Your task to perform on an android device: set an alarm Image 0: 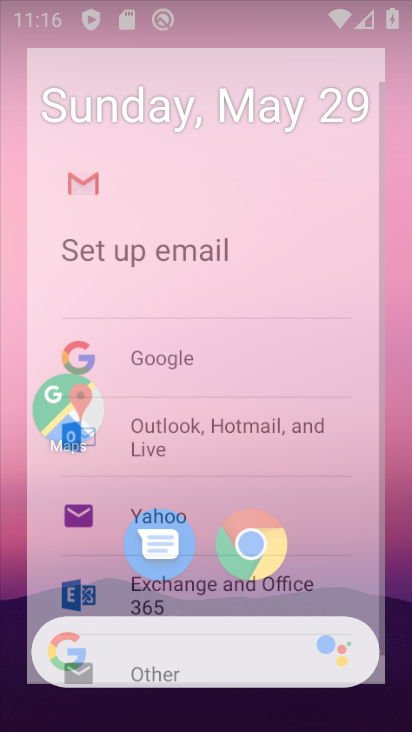
Step 0: press home button
Your task to perform on an android device: set an alarm Image 1: 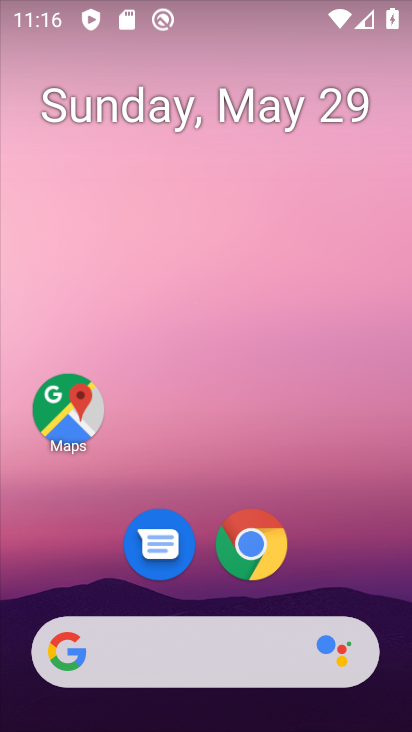
Step 1: drag from (200, 591) to (206, 2)
Your task to perform on an android device: set an alarm Image 2: 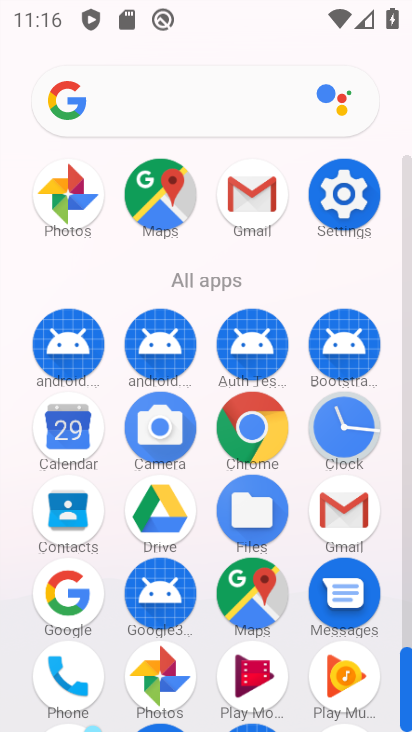
Step 2: click (341, 422)
Your task to perform on an android device: set an alarm Image 3: 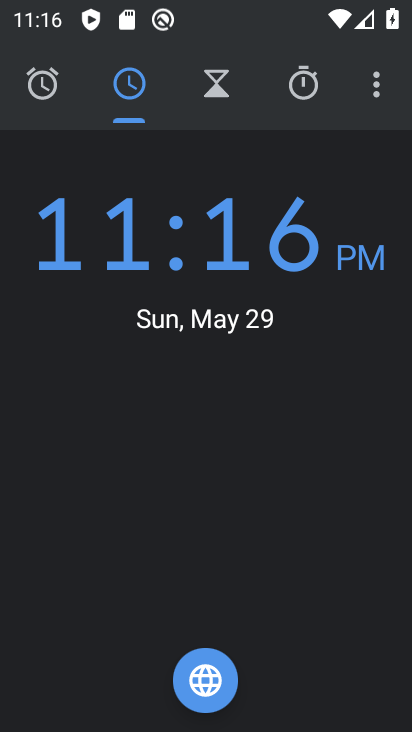
Step 3: click (41, 79)
Your task to perform on an android device: set an alarm Image 4: 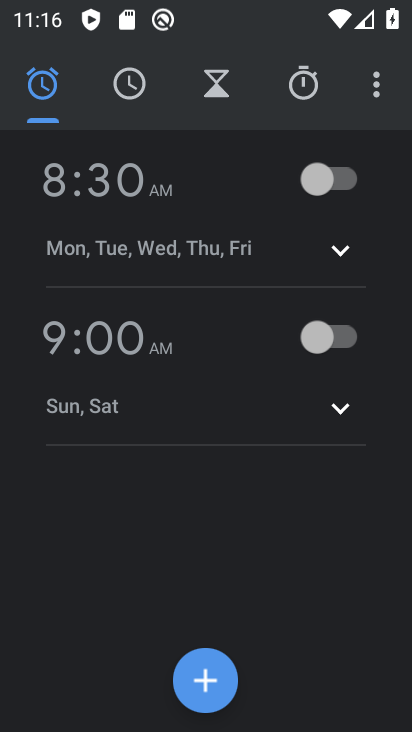
Step 4: click (337, 174)
Your task to perform on an android device: set an alarm Image 5: 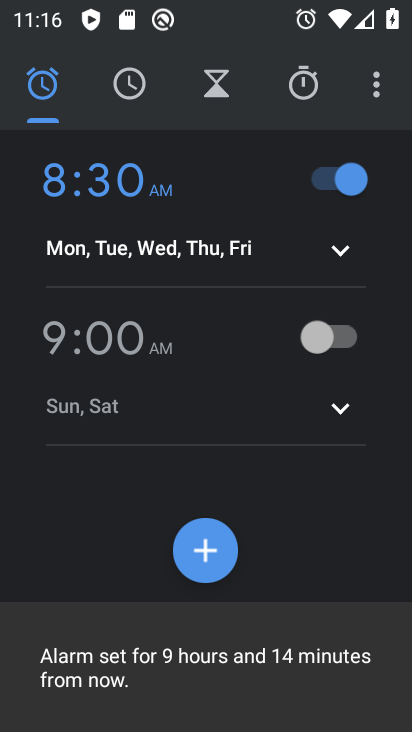
Step 5: click (329, 335)
Your task to perform on an android device: set an alarm Image 6: 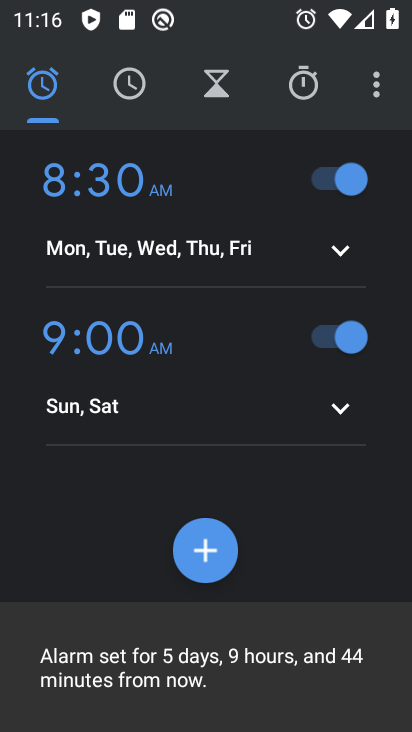
Step 6: task complete